Your task to perform on an android device: find snoozed emails in the gmail app Image 0: 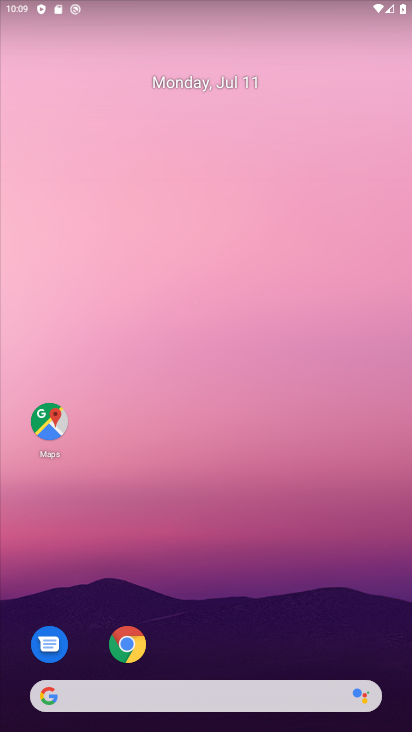
Step 0: drag from (217, 643) to (184, 10)
Your task to perform on an android device: find snoozed emails in the gmail app Image 1: 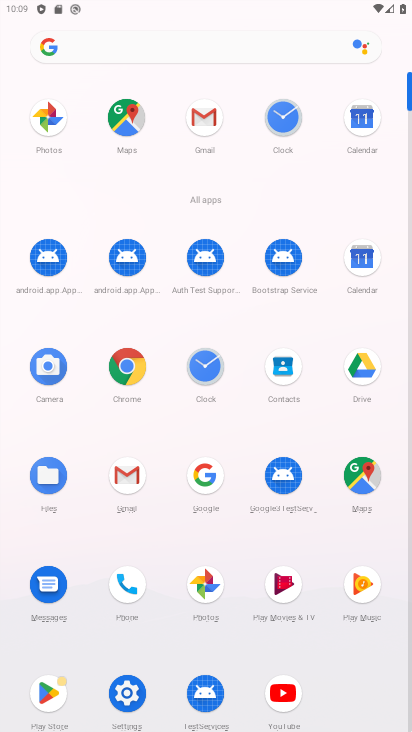
Step 1: click (120, 483)
Your task to perform on an android device: find snoozed emails in the gmail app Image 2: 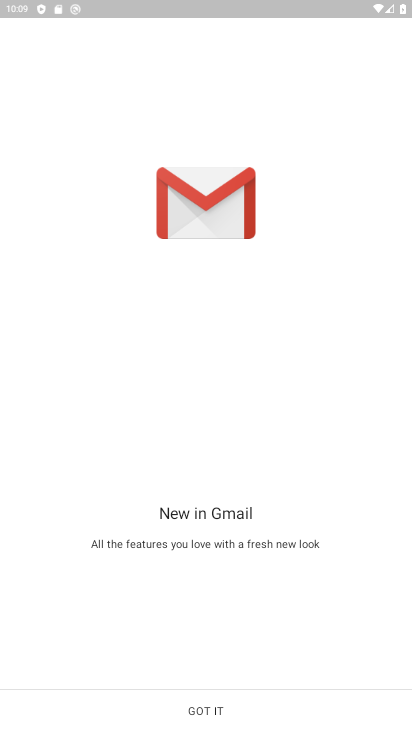
Step 2: click (215, 711)
Your task to perform on an android device: find snoozed emails in the gmail app Image 3: 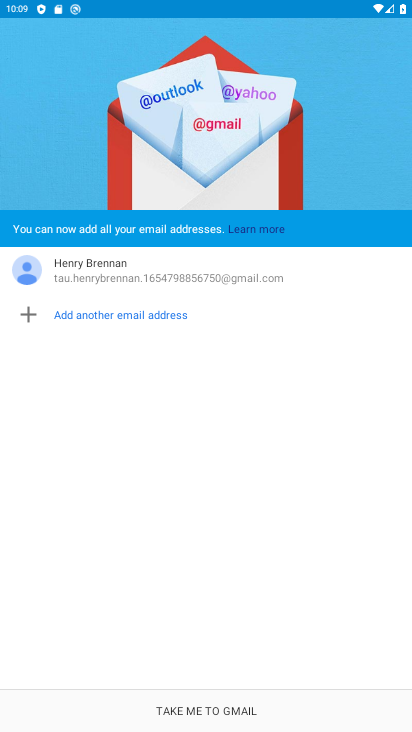
Step 3: click (215, 717)
Your task to perform on an android device: find snoozed emails in the gmail app Image 4: 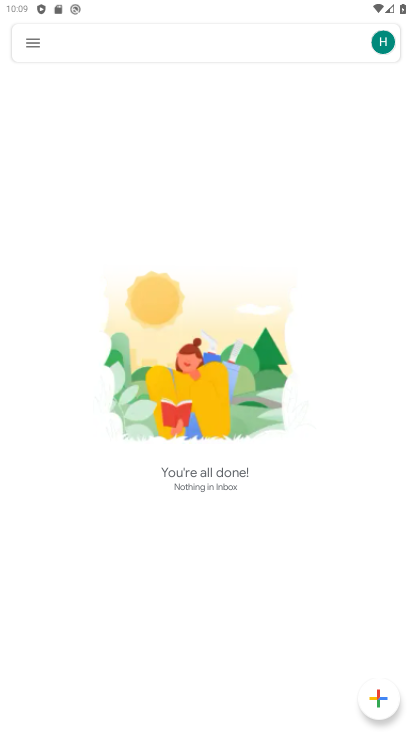
Step 4: click (37, 37)
Your task to perform on an android device: find snoozed emails in the gmail app Image 5: 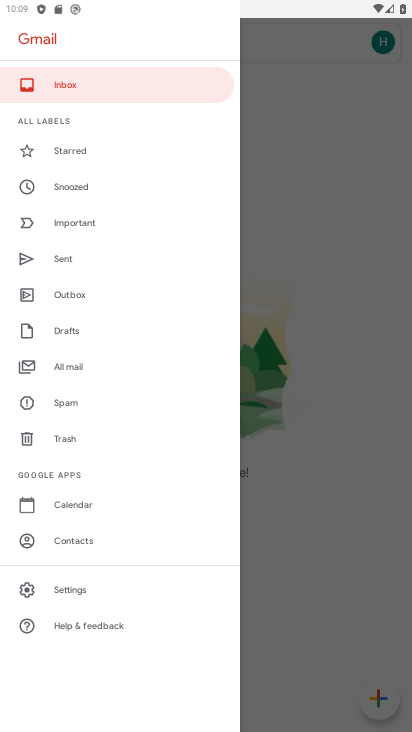
Step 5: click (59, 188)
Your task to perform on an android device: find snoozed emails in the gmail app Image 6: 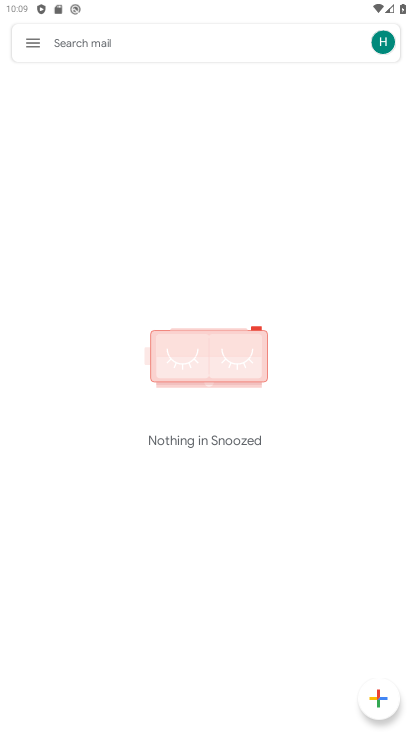
Step 6: task complete